Your task to perform on an android device: remove spam from my inbox in the gmail app Image 0: 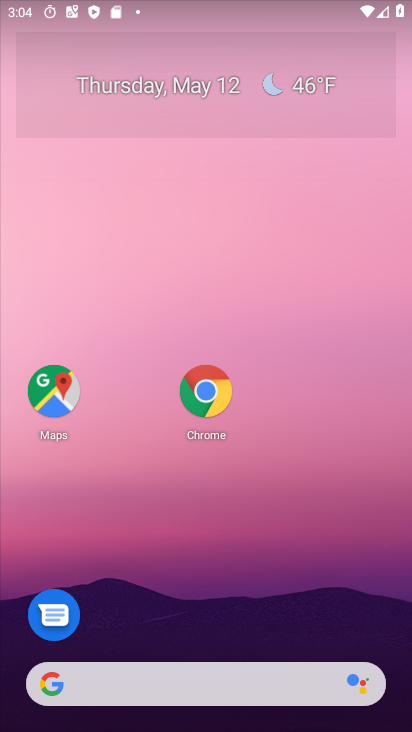
Step 0: drag from (226, 621) to (194, 70)
Your task to perform on an android device: remove spam from my inbox in the gmail app Image 1: 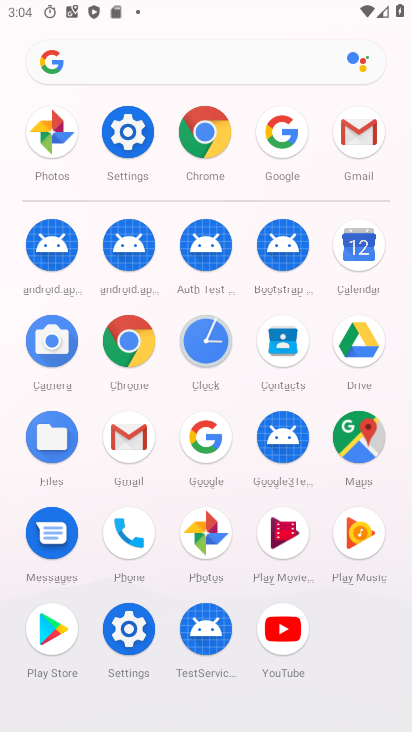
Step 1: click (360, 133)
Your task to perform on an android device: remove spam from my inbox in the gmail app Image 2: 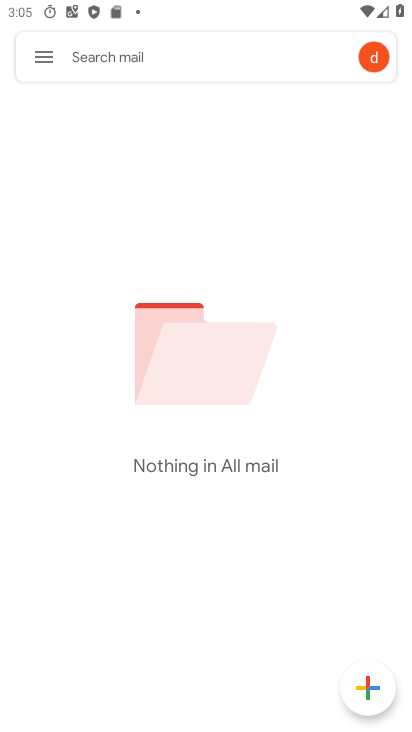
Step 2: click (38, 60)
Your task to perform on an android device: remove spam from my inbox in the gmail app Image 3: 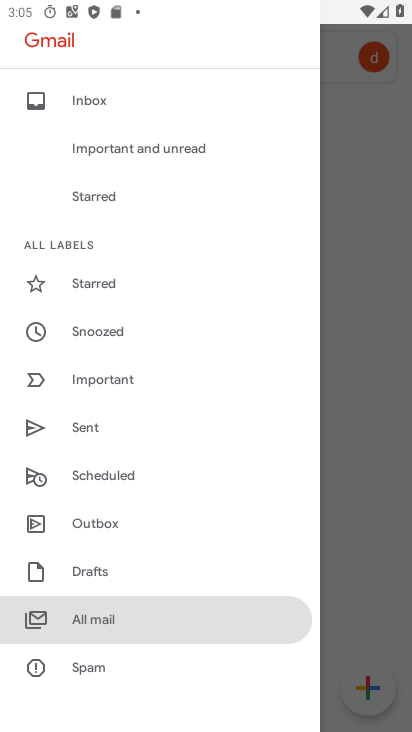
Step 3: click (111, 613)
Your task to perform on an android device: remove spam from my inbox in the gmail app Image 4: 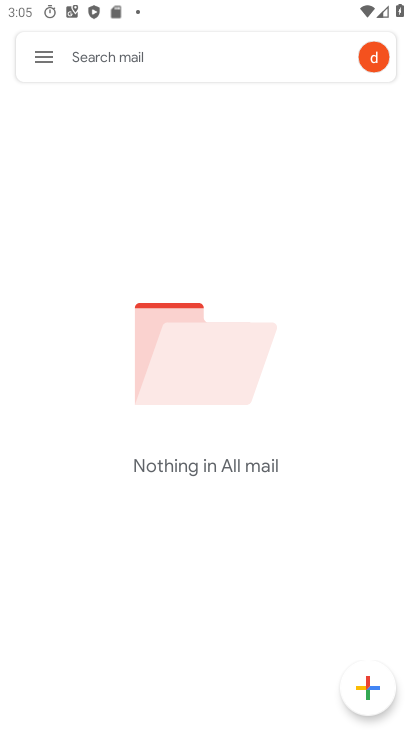
Step 4: click (44, 59)
Your task to perform on an android device: remove spam from my inbox in the gmail app Image 5: 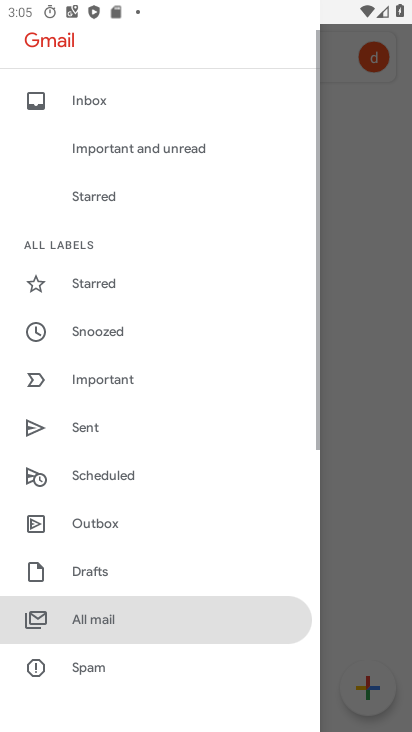
Step 5: click (92, 107)
Your task to perform on an android device: remove spam from my inbox in the gmail app Image 6: 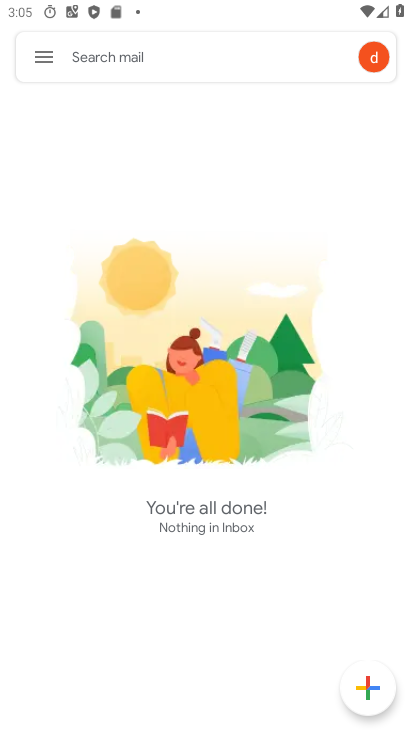
Step 6: task complete